Your task to perform on an android device: turn off picture-in-picture Image 0: 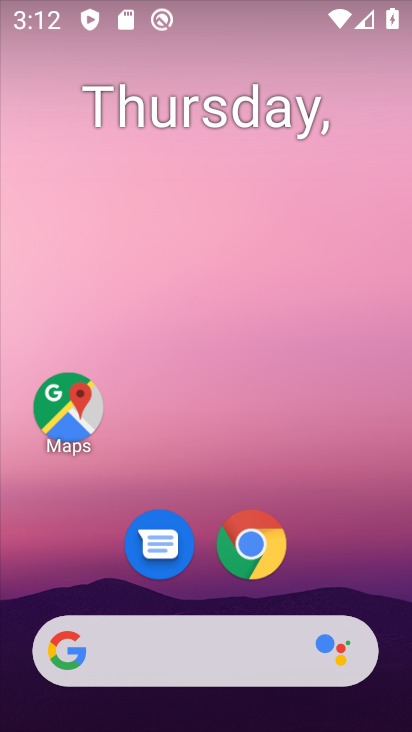
Step 0: click (23, 401)
Your task to perform on an android device: turn off picture-in-picture Image 1: 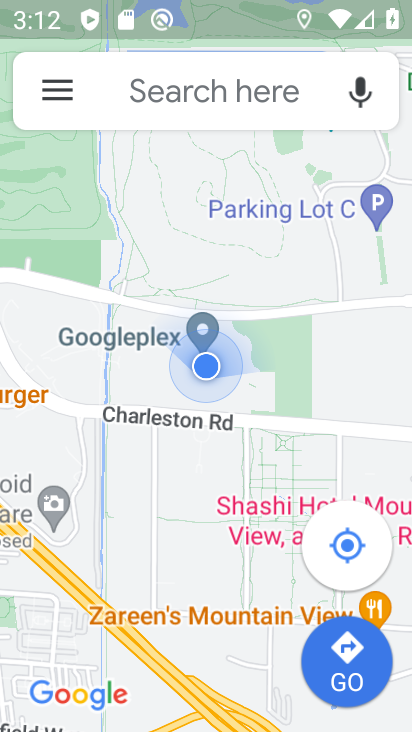
Step 1: press home button
Your task to perform on an android device: turn off picture-in-picture Image 2: 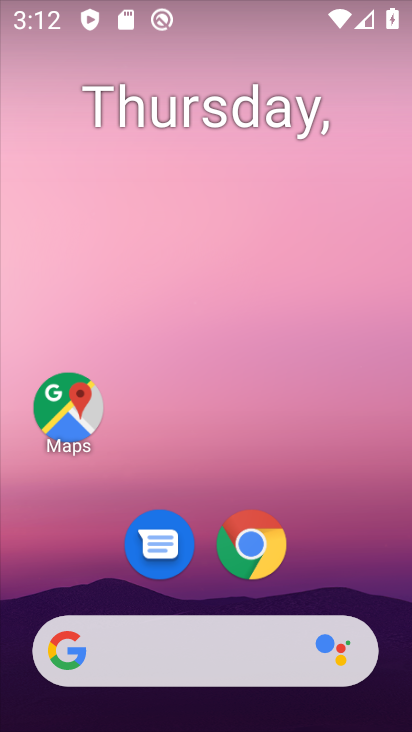
Step 2: drag from (354, 574) to (395, 495)
Your task to perform on an android device: turn off picture-in-picture Image 3: 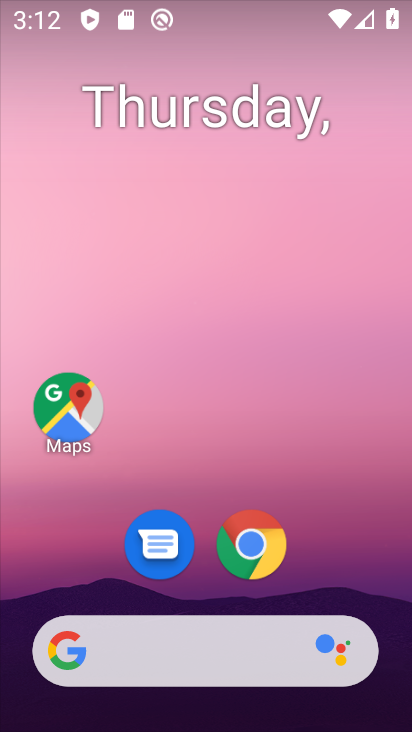
Step 3: drag from (322, 579) to (319, 36)
Your task to perform on an android device: turn off picture-in-picture Image 4: 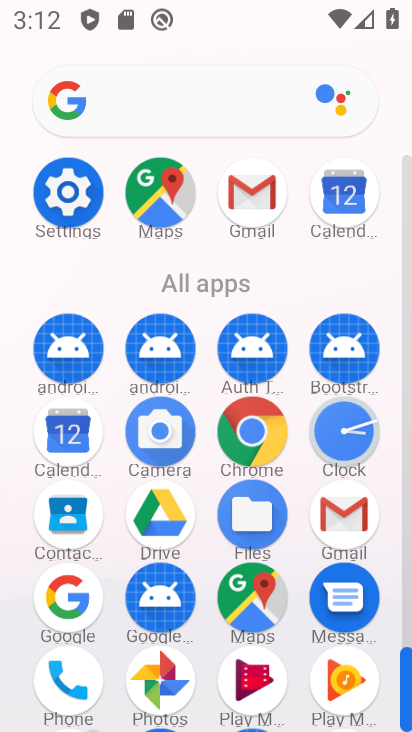
Step 4: click (74, 206)
Your task to perform on an android device: turn off picture-in-picture Image 5: 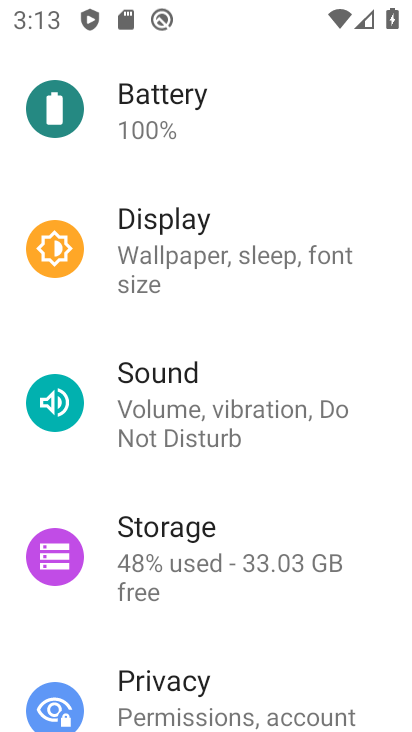
Step 5: drag from (185, 627) to (248, 136)
Your task to perform on an android device: turn off picture-in-picture Image 6: 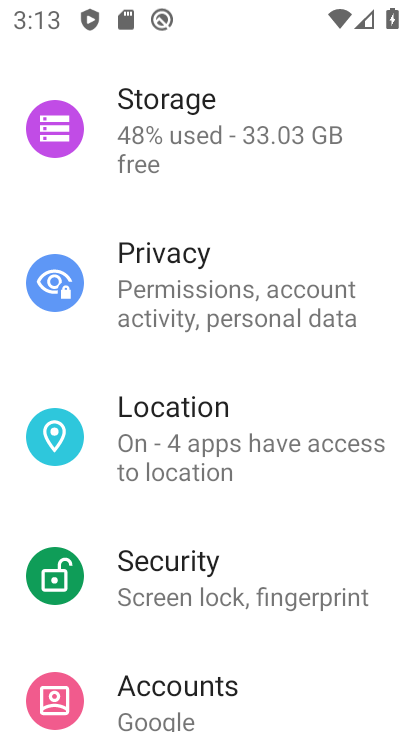
Step 6: drag from (229, 623) to (294, 707)
Your task to perform on an android device: turn off picture-in-picture Image 7: 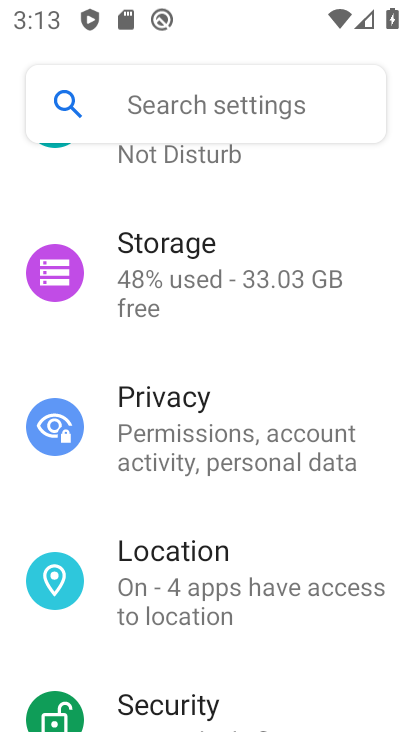
Step 7: drag from (215, 180) to (280, 676)
Your task to perform on an android device: turn off picture-in-picture Image 8: 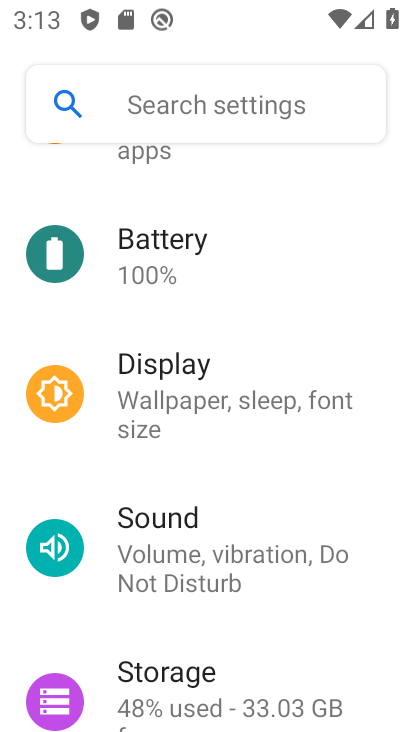
Step 8: drag from (185, 251) to (253, 661)
Your task to perform on an android device: turn off picture-in-picture Image 9: 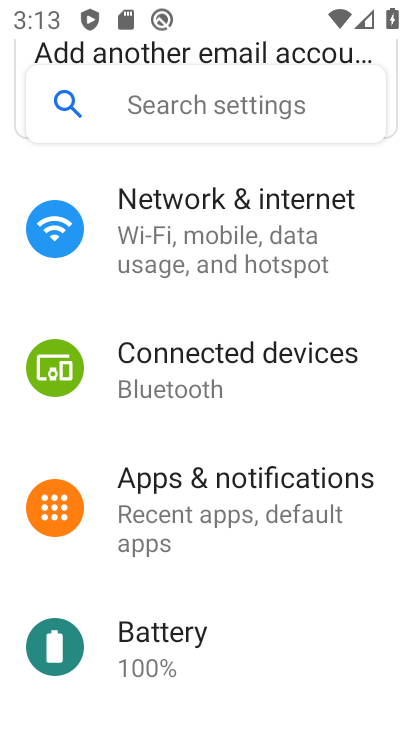
Step 9: click (181, 510)
Your task to perform on an android device: turn off picture-in-picture Image 10: 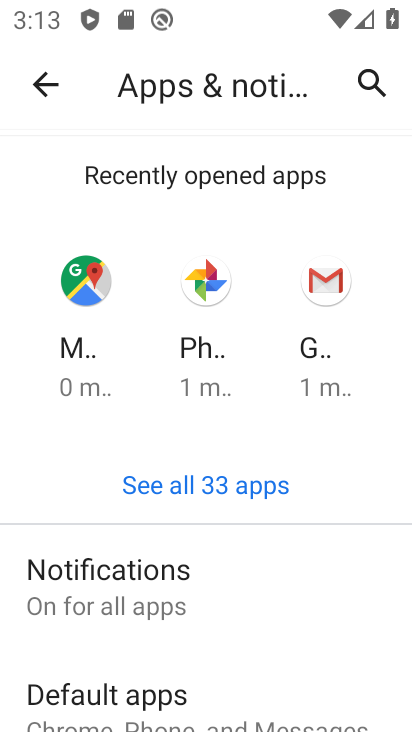
Step 10: click (226, 593)
Your task to perform on an android device: turn off picture-in-picture Image 11: 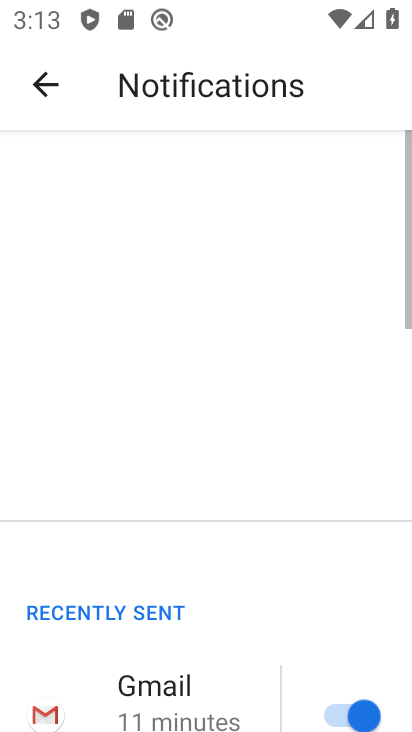
Step 11: drag from (225, 588) to (268, 89)
Your task to perform on an android device: turn off picture-in-picture Image 12: 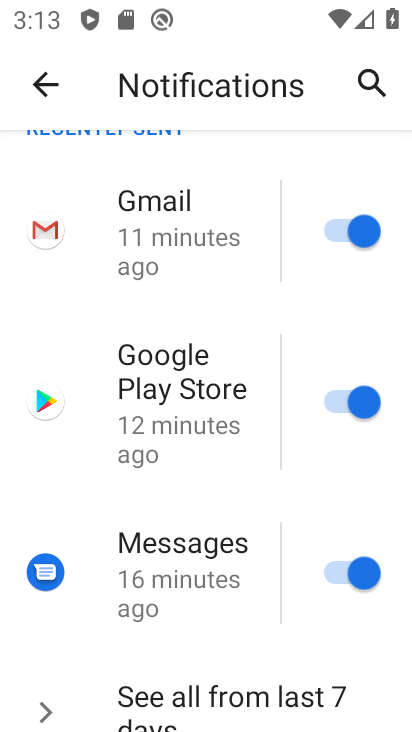
Step 12: drag from (258, 681) to (391, 150)
Your task to perform on an android device: turn off picture-in-picture Image 13: 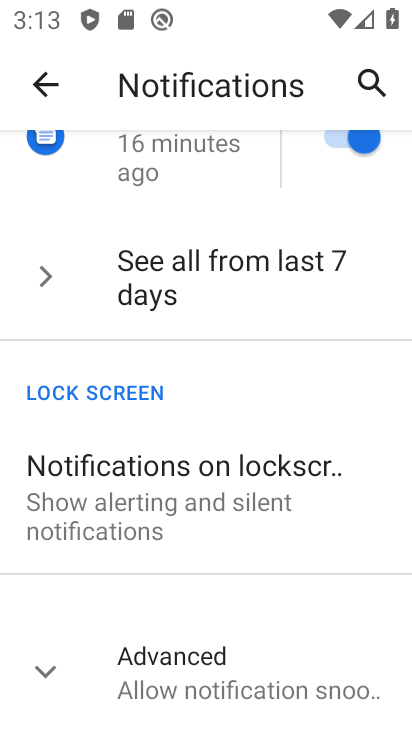
Step 13: click (192, 623)
Your task to perform on an android device: turn off picture-in-picture Image 14: 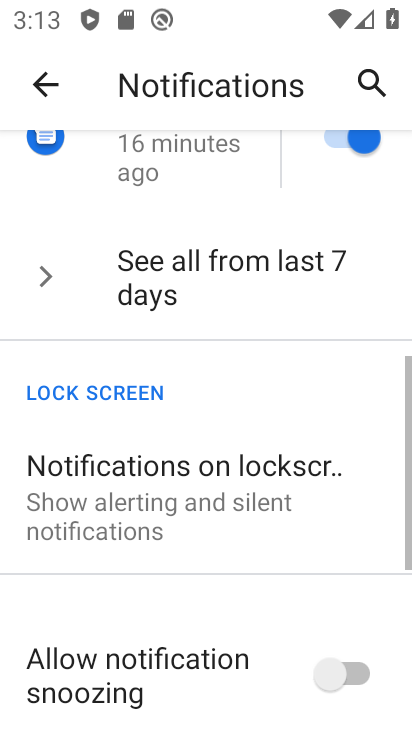
Step 14: drag from (175, 668) to (268, 62)
Your task to perform on an android device: turn off picture-in-picture Image 15: 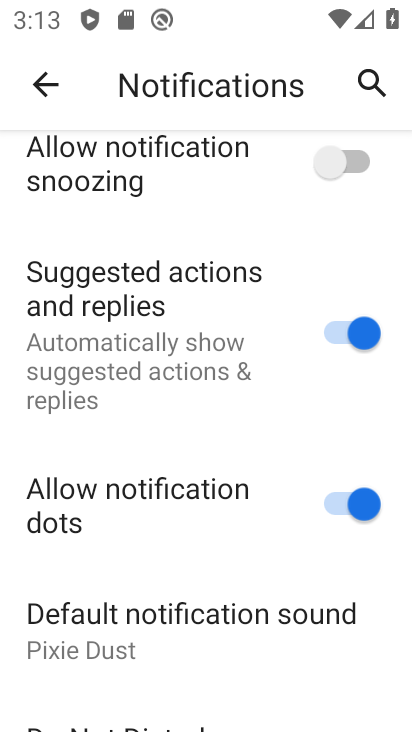
Step 15: drag from (270, 585) to (238, 32)
Your task to perform on an android device: turn off picture-in-picture Image 16: 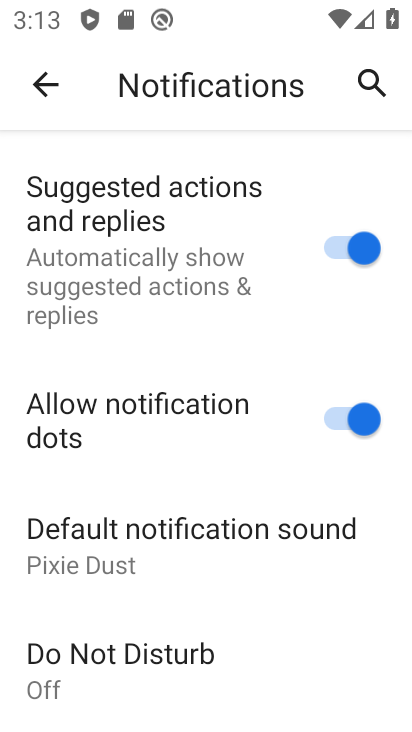
Step 16: click (204, 631)
Your task to perform on an android device: turn off picture-in-picture Image 17: 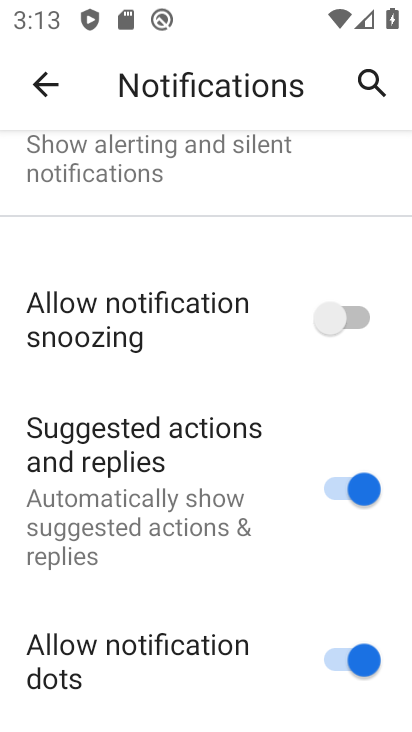
Step 17: drag from (190, 369) to (201, 618)
Your task to perform on an android device: turn off picture-in-picture Image 18: 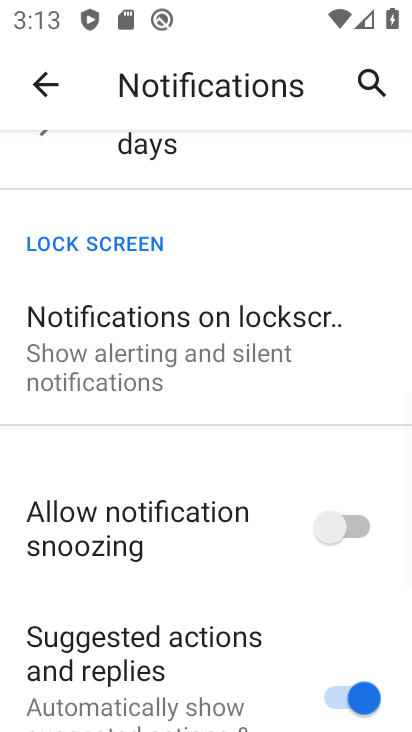
Step 18: drag from (152, 297) to (254, 7)
Your task to perform on an android device: turn off picture-in-picture Image 19: 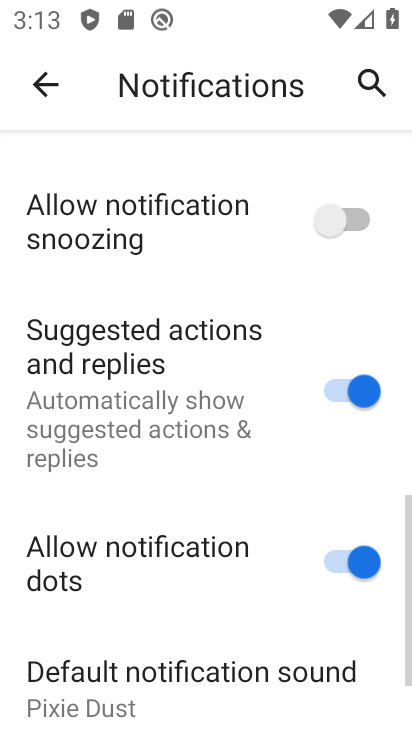
Step 19: drag from (148, 606) to (173, 368)
Your task to perform on an android device: turn off picture-in-picture Image 20: 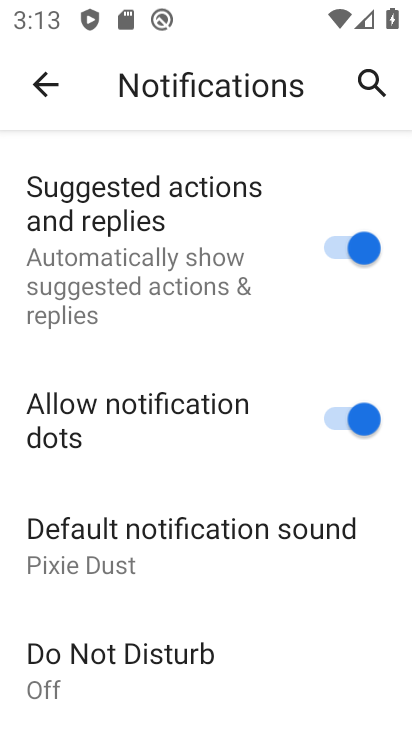
Step 20: drag from (129, 594) to (171, 705)
Your task to perform on an android device: turn off picture-in-picture Image 21: 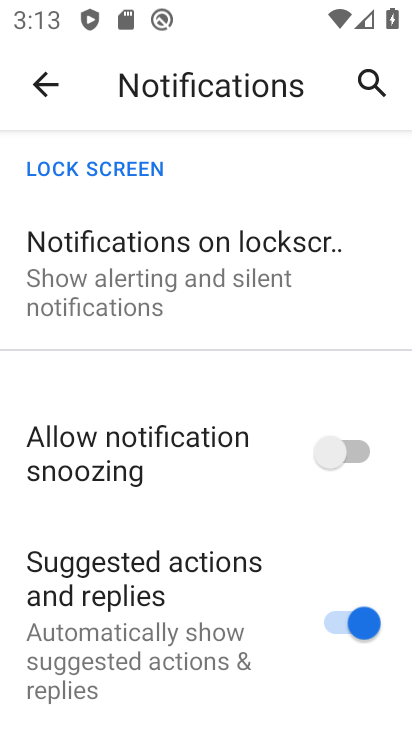
Step 21: drag from (120, 405) to (162, 651)
Your task to perform on an android device: turn off picture-in-picture Image 22: 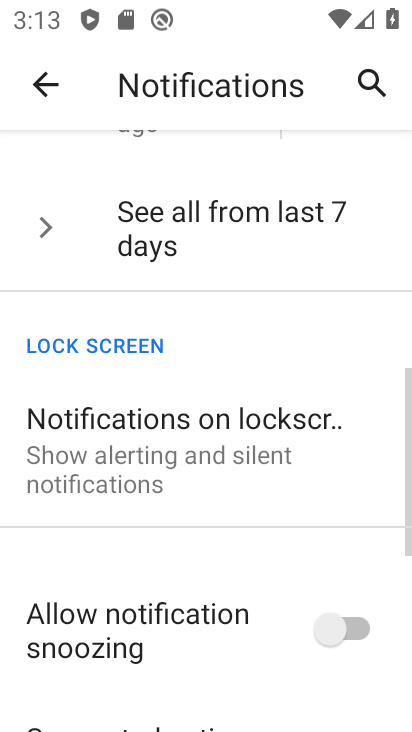
Step 22: drag from (155, 289) to (161, 604)
Your task to perform on an android device: turn off picture-in-picture Image 23: 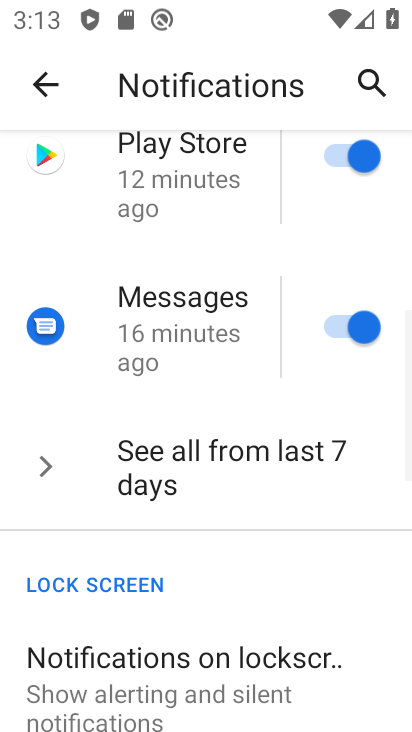
Step 23: click (53, 84)
Your task to perform on an android device: turn off picture-in-picture Image 24: 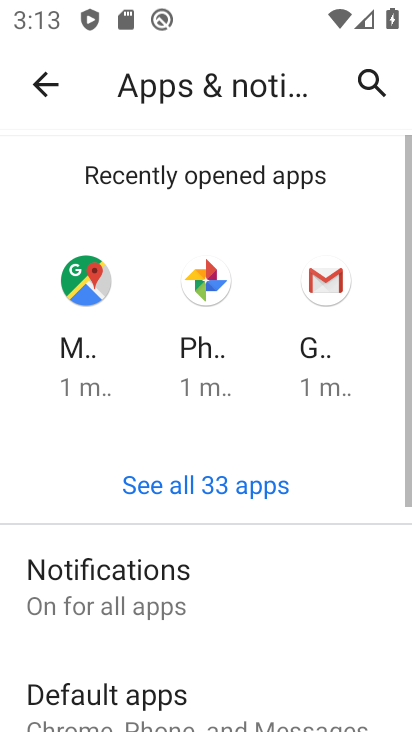
Step 24: drag from (251, 661) to (265, 44)
Your task to perform on an android device: turn off picture-in-picture Image 25: 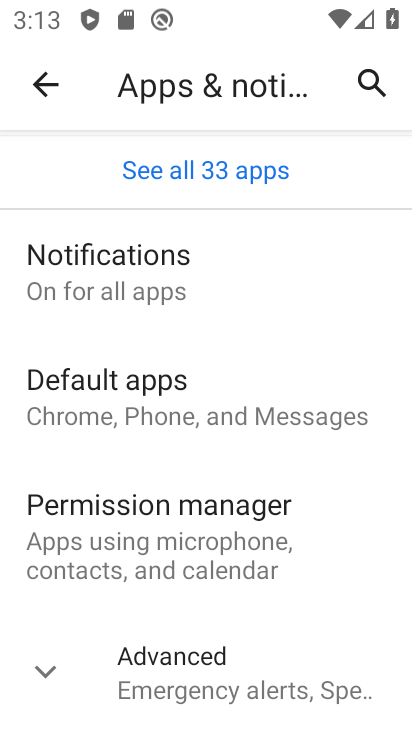
Step 25: click (194, 672)
Your task to perform on an android device: turn off picture-in-picture Image 26: 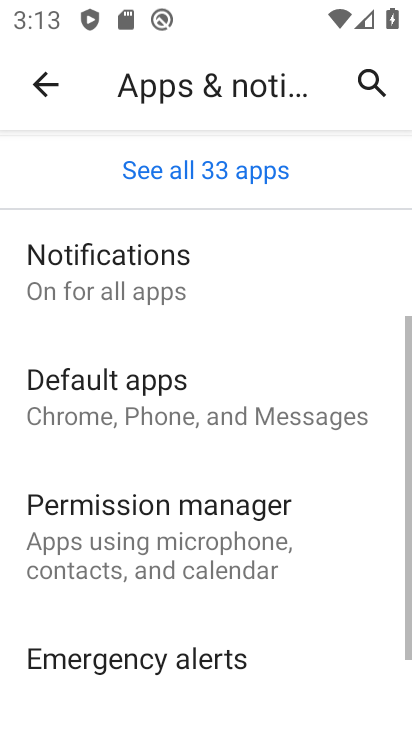
Step 26: drag from (194, 672) to (292, 108)
Your task to perform on an android device: turn off picture-in-picture Image 27: 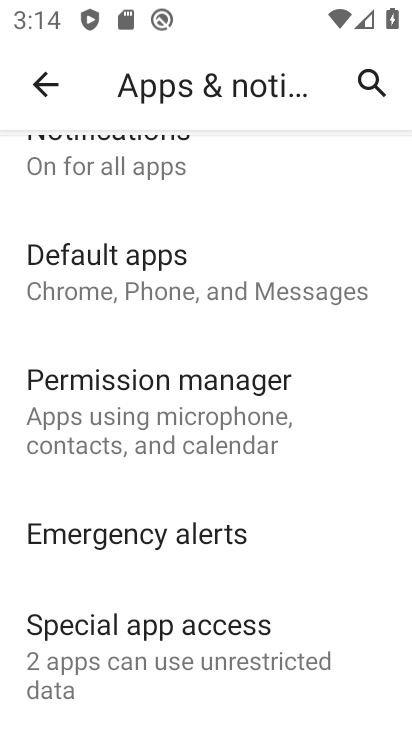
Step 27: click (214, 646)
Your task to perform on an android device: turn off picture-in-picture Image 28: 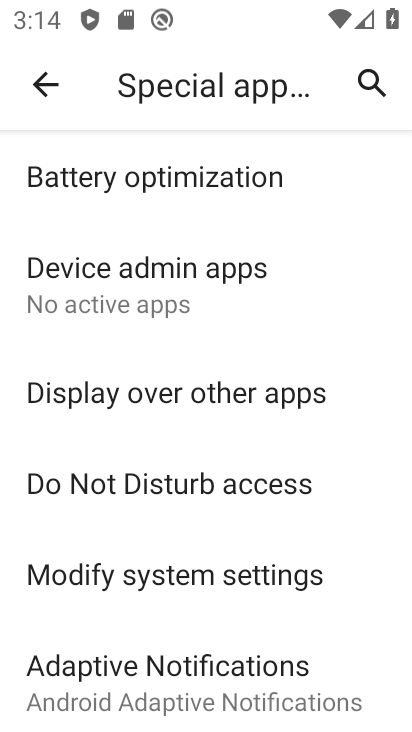
Step 28: drag from (176, 578) to (199, 93)
Your task to perform on an android device: turn off picture-in-picture Image 29: 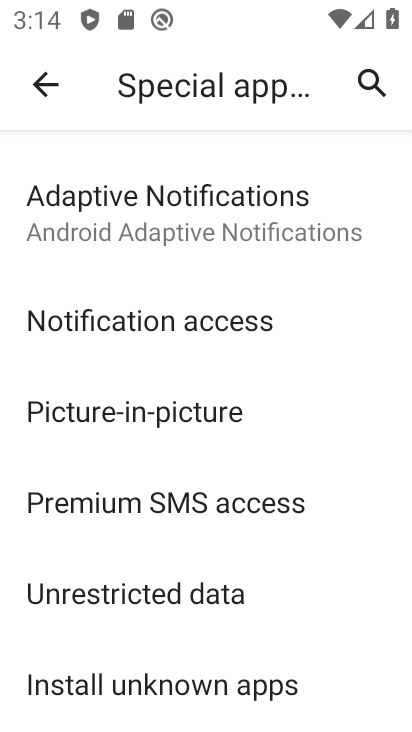
Step 29: click (84, 416)
Your task to perform on an android device: turn off picture-in-picture Image 30: 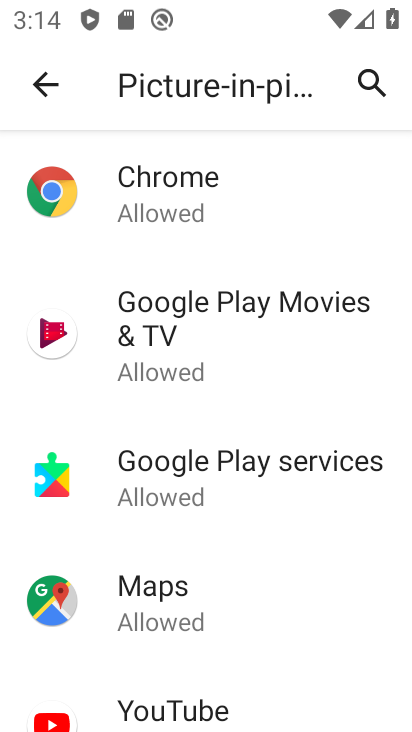
Step 30: click (200, 183)
Your task to perform on an android device: turn off picture-in-picture Image 31: 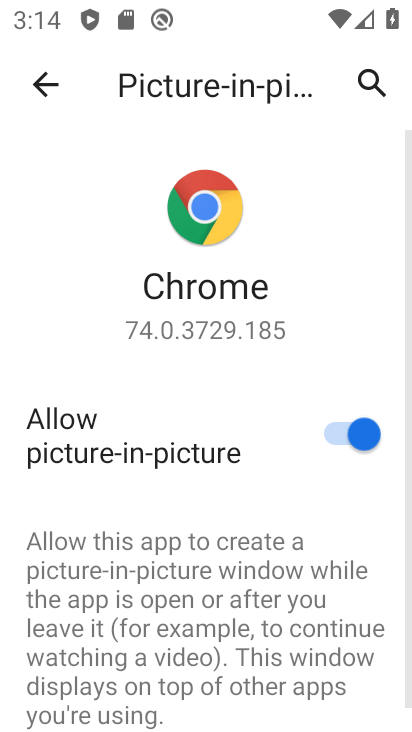
Step 31: click (373, 431)
Your task to perform on an android device: turn off picture-in-picture Image 32: 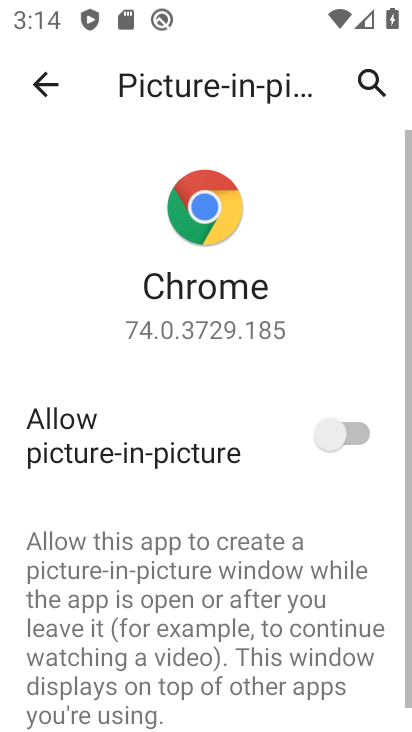
Step 32: click (45, 72)
Your task to perform on an android device: turn off picture-in-picture Image 33: 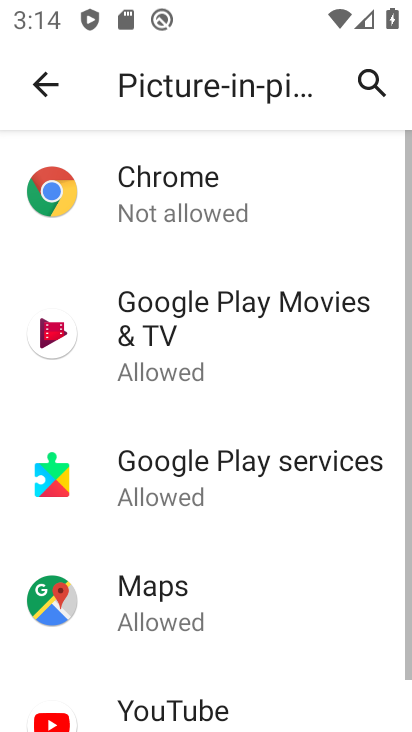
Step 33: click (191, 308)
Your task to perform on an android device: turn off picture-in-picture Image 34: 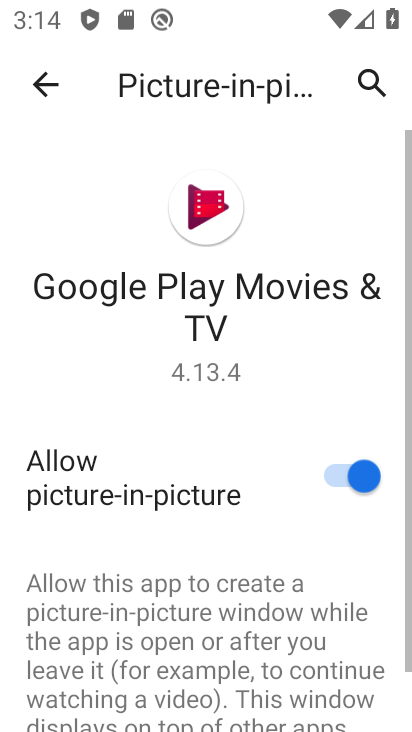
Step 34: click (363, 476)
Your task to perform on an android device: turn off picture-in-picture Image 35: 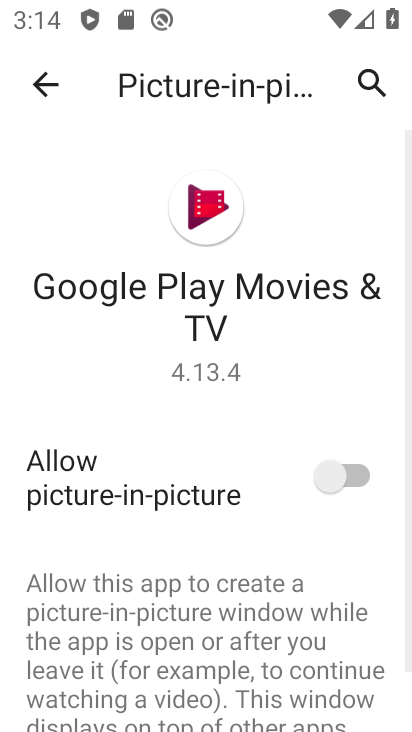
Step 35: click (45, 83)
Your task to perform on an android device: turn off picture-in-picture Image 36: 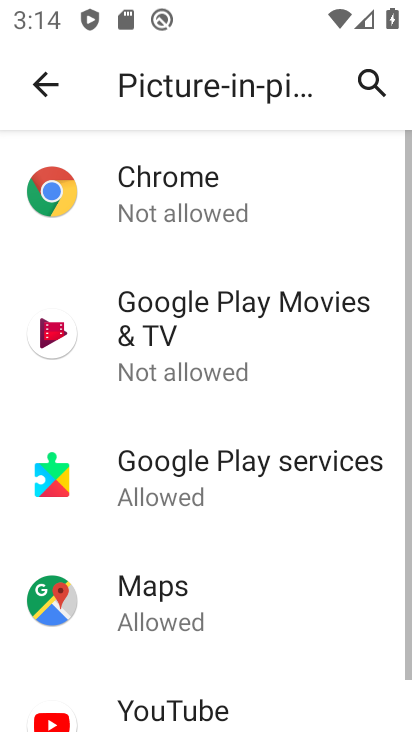
Step 36: drag from (210, 538) to (212, 438)
Your task to perform on an android device: turn off picture-in-picture Image 37: 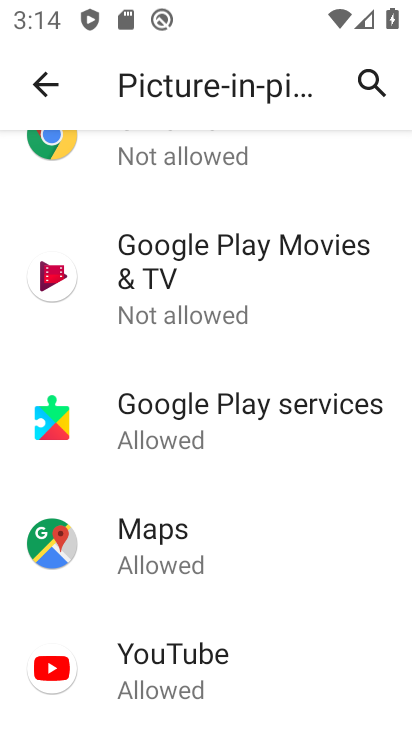
Step 37: click (212, 438)
Your task to perform on an android device: turn off picture-in-picture Image 38: 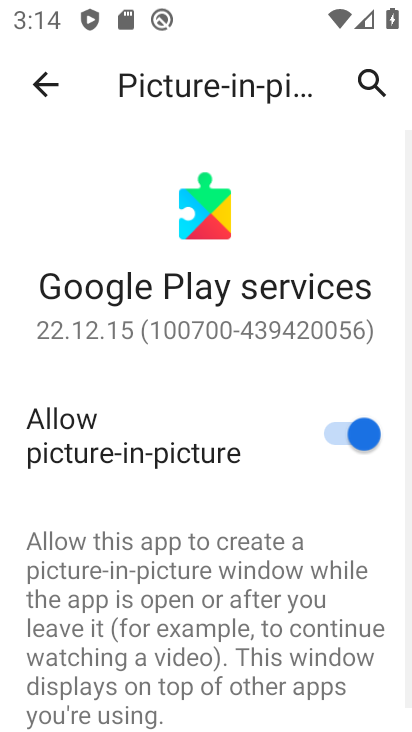
Step 38: click (333, 435)
Your task to perform on an android device: turn off picture-in-picture Image 39: 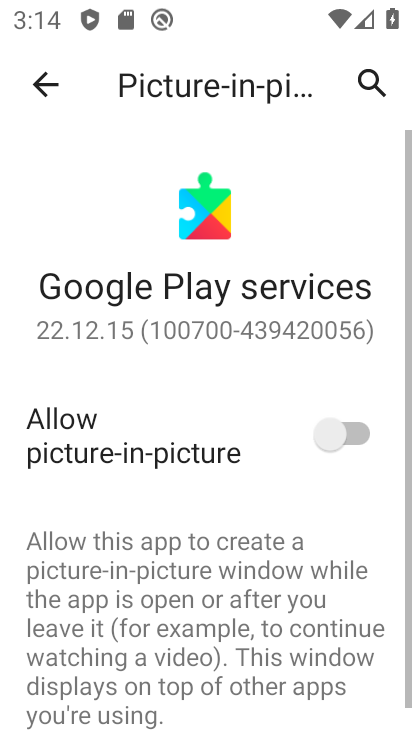
Step 39: click (35, 86)
Your task to perform on an android device: turn off picture-in-picture Image 40: 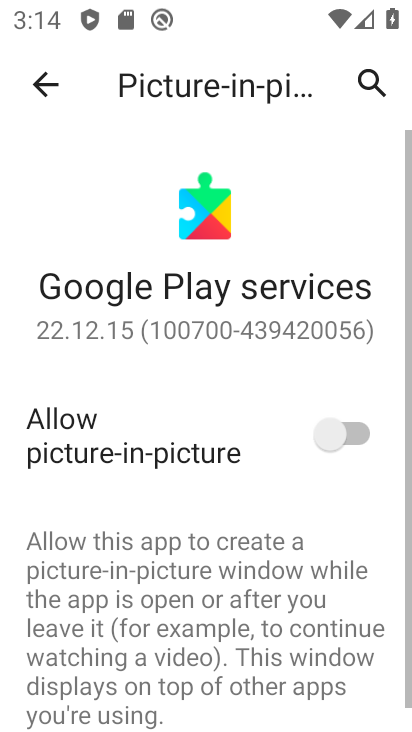
Step 40: drag from (119, 497) to (118, 173)
Your task to perform on an android device: turn off picture-in-picture Image 41: 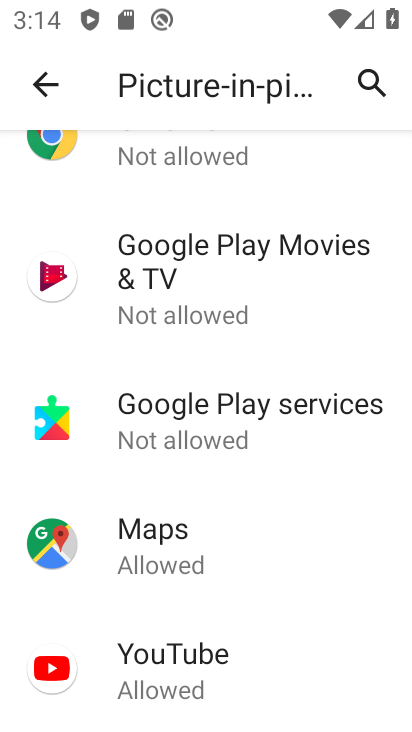
Step 41: click (131, 565)
Your task to perform on an android device: turn off picture-in-picture Image 42: 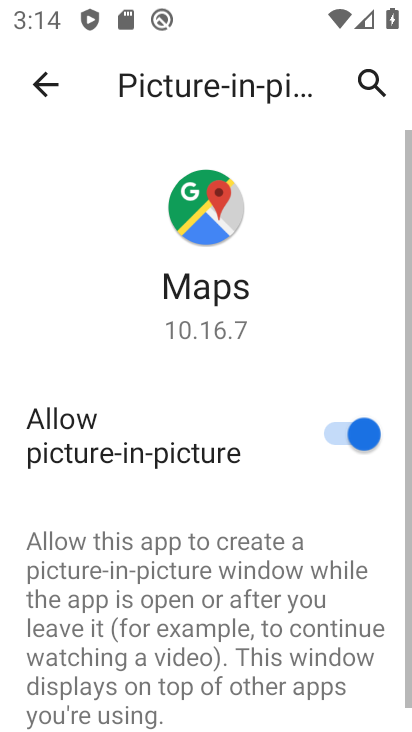
Step 42: click (358, 430)
Your task to perform on an android device: turn off picture-in-picture Image 43: 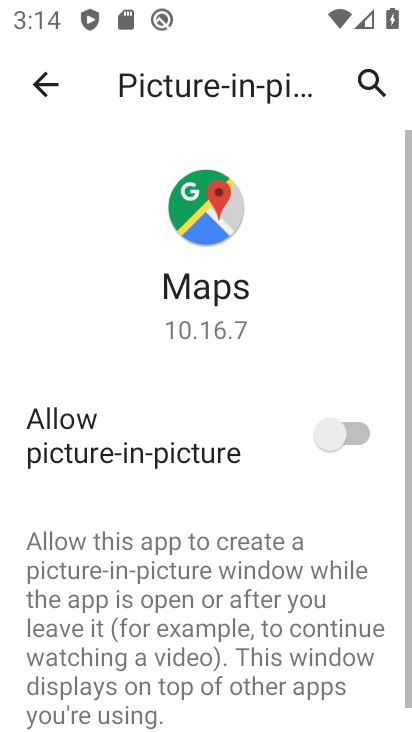
Step 43: click (34, 82)
Your task to perform on an android device: turn off picture-in-picture Image 44: 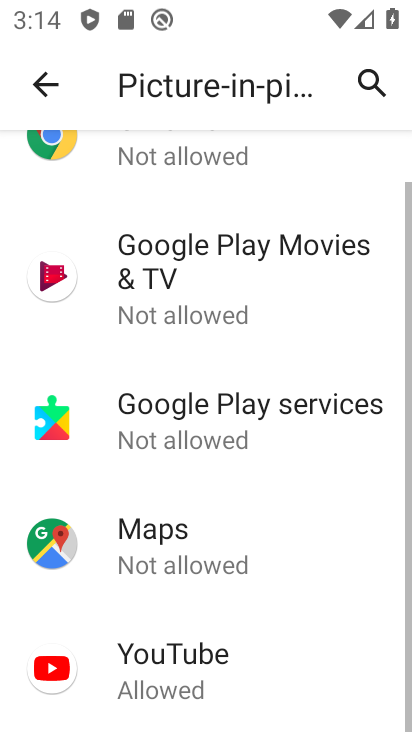
Step 44: drag from (183, 606) to (195, 214)
Your task to perform on an android device: turn off picture-in-picture Image 45: 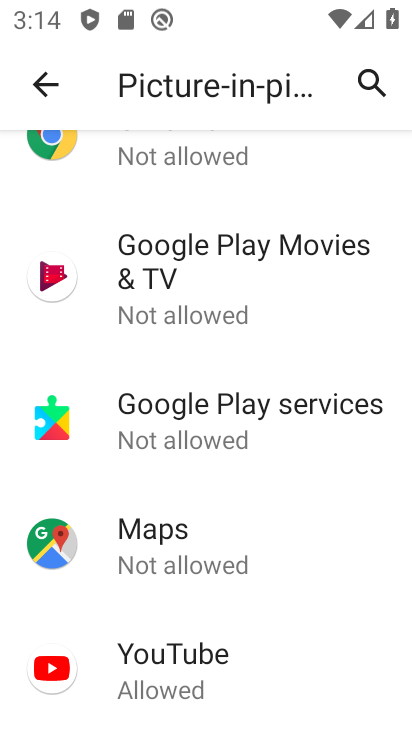
Step 45: click (213, 655)
Your task to perform on an android device: turn off picture-in-picture Image 46: 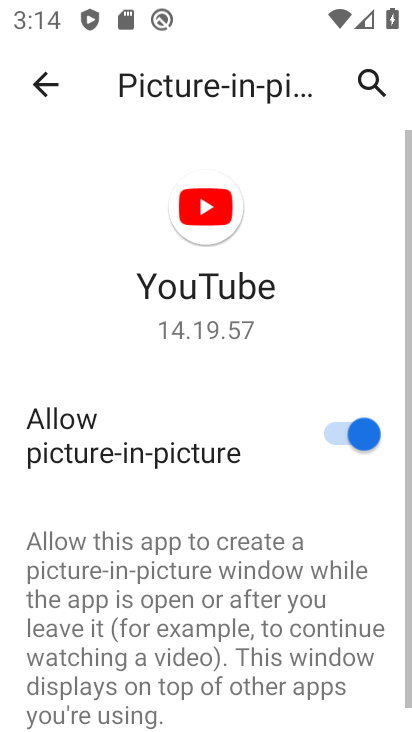
Step 46: click (346, 438)
Your task to perform on an android device: turn off picture-in-picture Image 47: 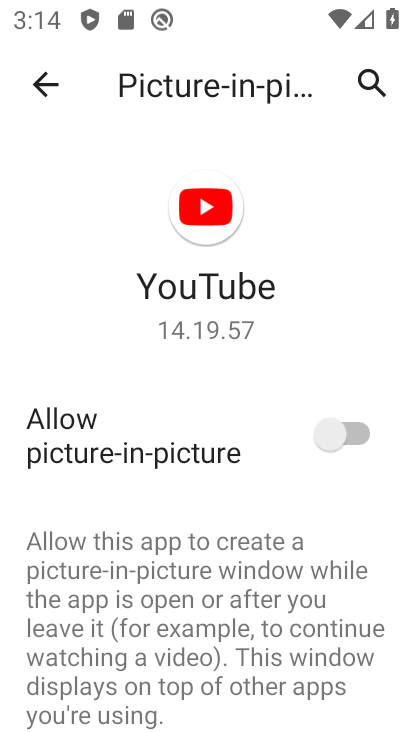
Step 47: task complete